Your task to perform on an android device: check google app version Image 0: 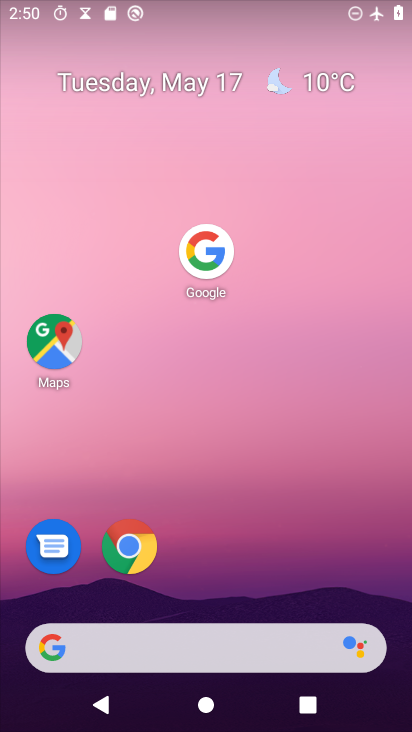
Step 0: click (213, 248)
Your task to perform on an android device: check google app version Image 1: 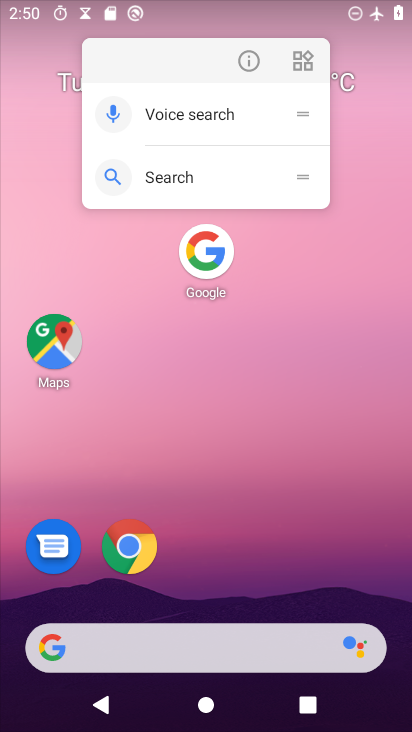
Step 1: click (247, 60)
Your task to perform on an android device: check google app version Image 2: 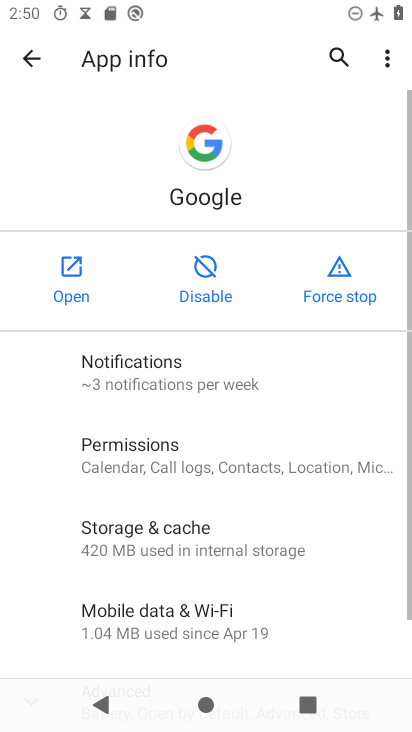
Step 2: drag from (182, 635) to (313, 147)
Your task to perform on an android device: check google app version Image 3: 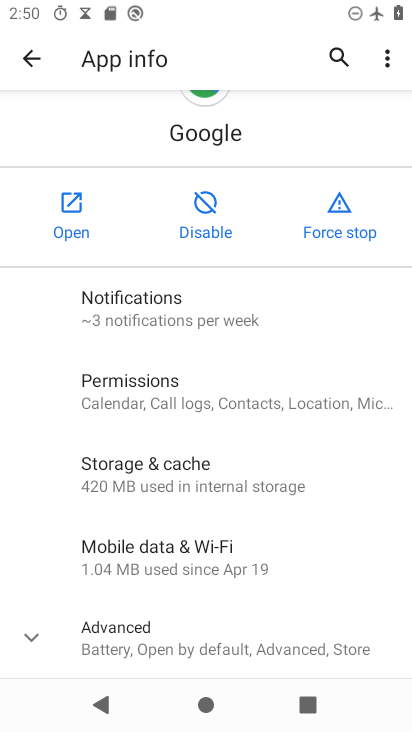
Step 3: click (140, 637)
Your task to perform on an android device: check google app version Image 4: 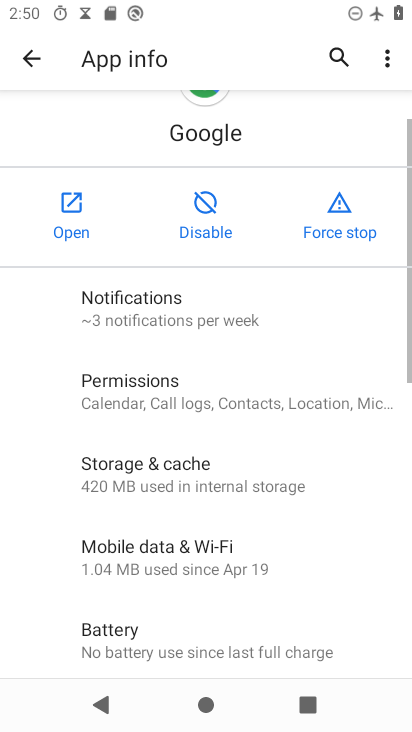
Step 4: task complete